Your task to perform on an android device: Open settings on Google Maps Image 0: 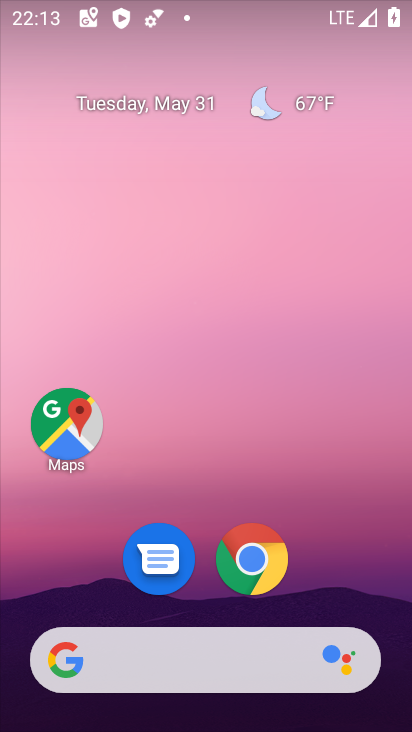
Step 0: click (56, 429)
Your task to perform on an android device: Open settings on Google Maps Image 1: 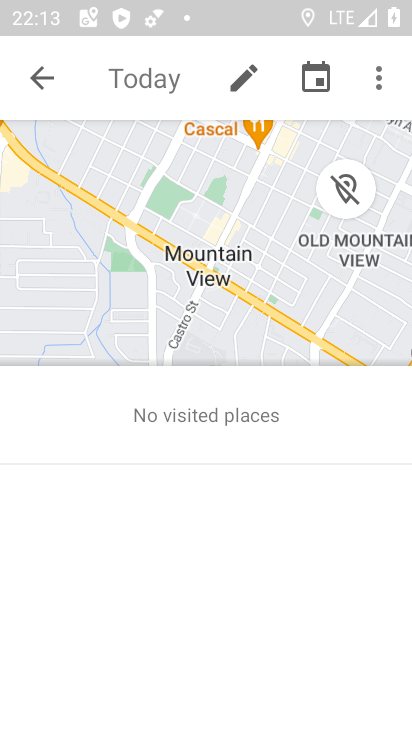
Step 1: press back button
Your task to perform on an android device: Open settings on Google Maps Image 2: 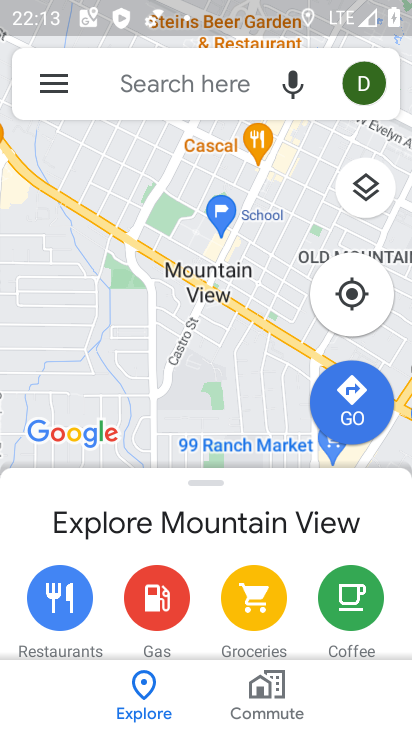
Step 2: click (50, 76)
Your task to perform on an android device: Open settings on Google Maps Image 3: 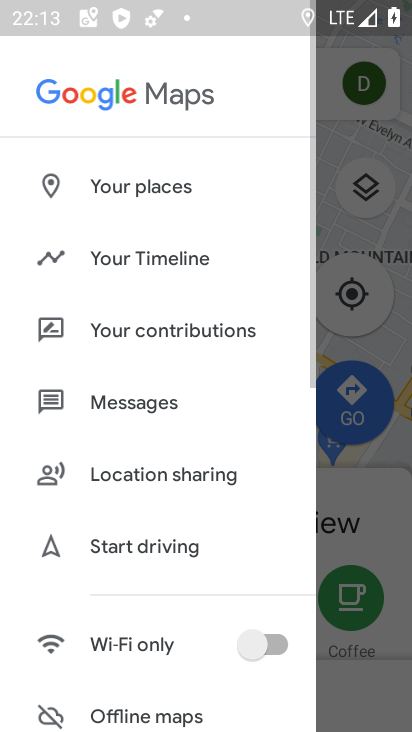
Step 3: drag from (165, 624) to (162, 168)
Your task to perform on an android device: Open settings on Google Maps Image 4: 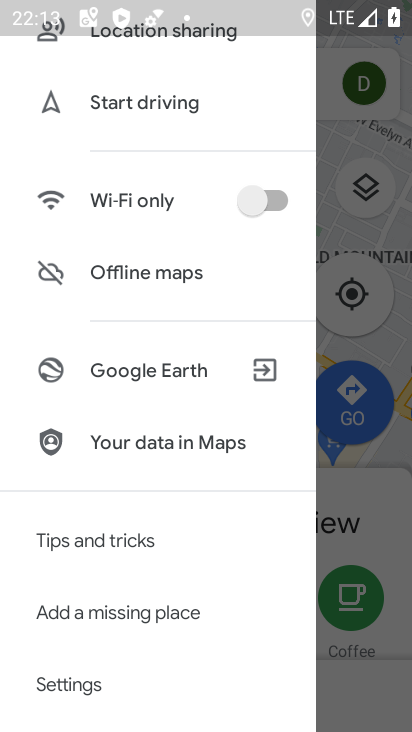
Step 4: click (90, 677)
Your task to perform on an android device: Open settings on Google Maps Image 5: 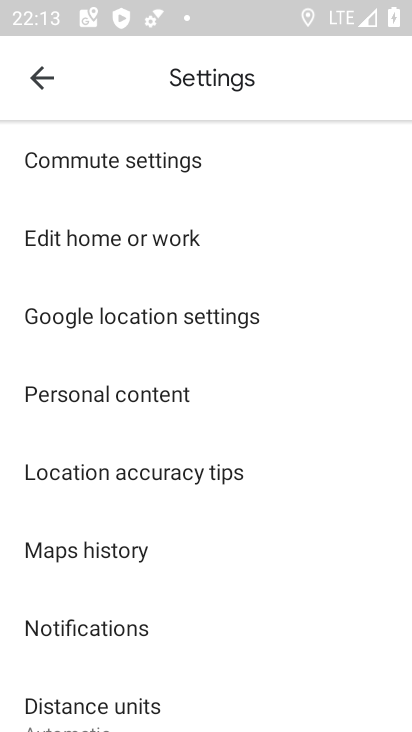
Step 5: task complete